Your task to perform on an android device: Do I have any events today? Image 0: 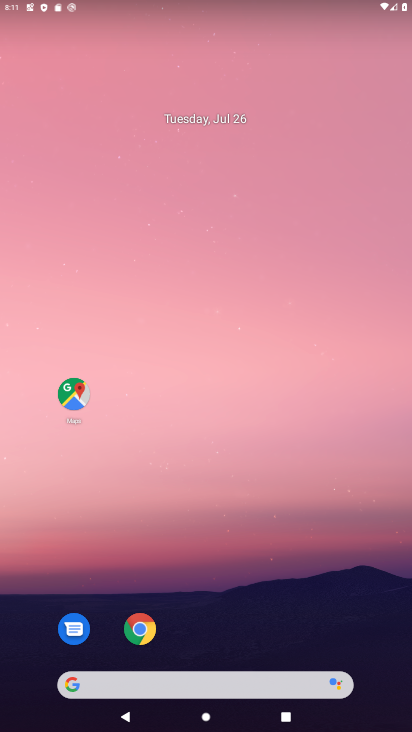
Step 0: press home button
Your task to perform on an android device: Do I have any events today? Image 1: 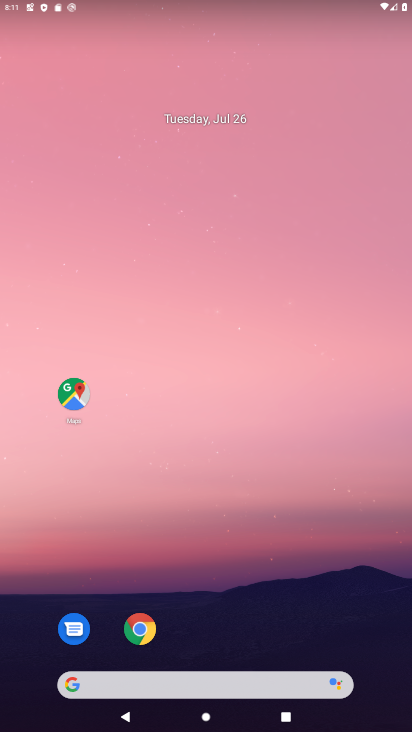
Step 1: drag from (216, 646) to (253, 32)
Your task to perform on an android device: Do I have any events today? Image 2: 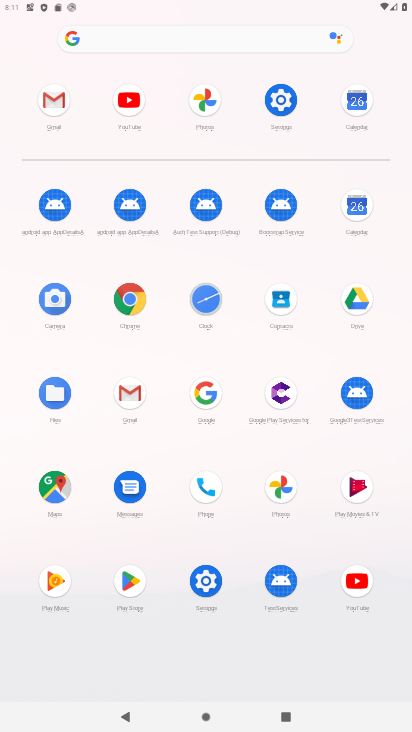
Step 2: click (353, 209)
Your task to perform on an android device: Do I have any events today? Image 3: 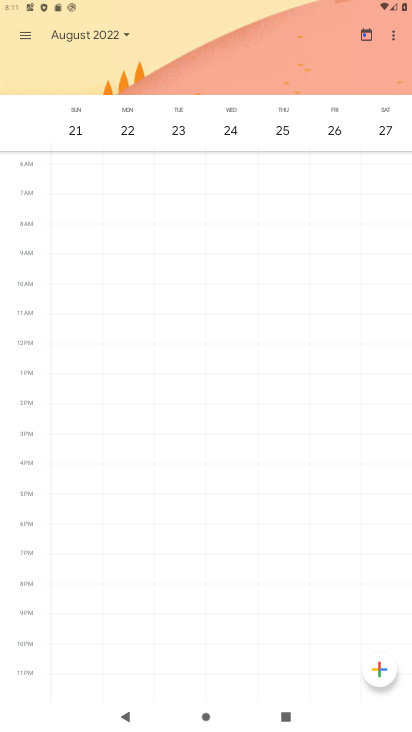
Step 3: click (23, 34)
Your task to perform on an android device: Do I have any events today? Image 4: 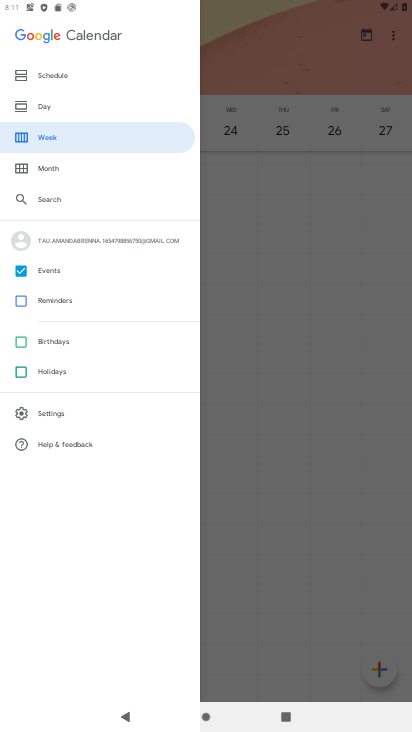
Step 4: click (47, 102)
Your task to perform on an android device: Do I have any events today? Image 5: 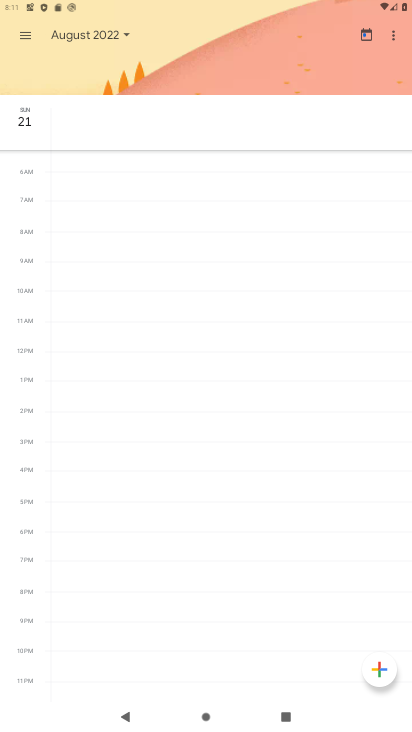
Step 5: click (125, 35)
Your task to perform on an android device: Do I have any events today? Image 6: 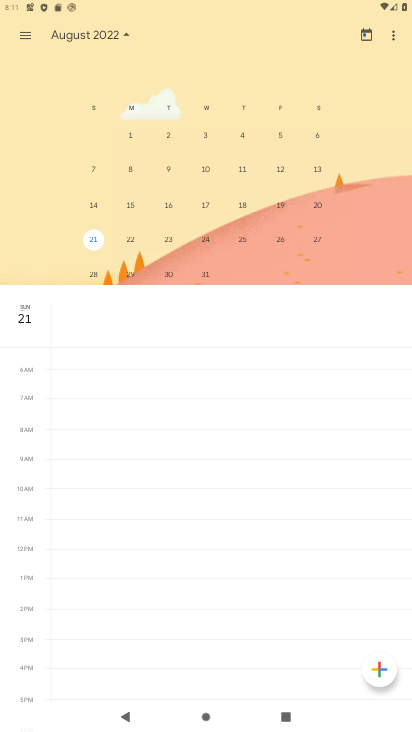
Step 6: drag from (107, 150) to (411, 137)
Your task to perform on an android device: Do I have any events today? Image 7: 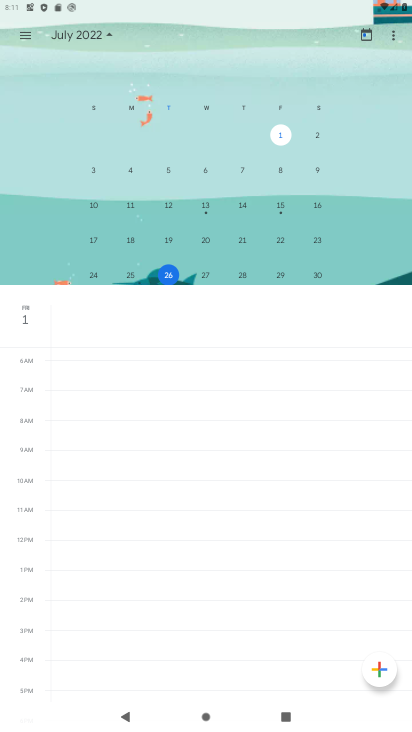
Step 7: click (170, 270)
Your task to perform on an android device: Do I have any events today? Image 8: 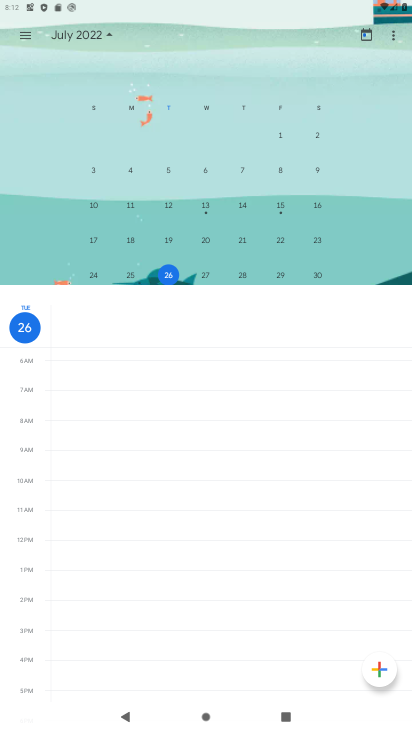
Step 8: click (106, 29)
Your task to perform on an android device: Do I have any events today? Image 9: 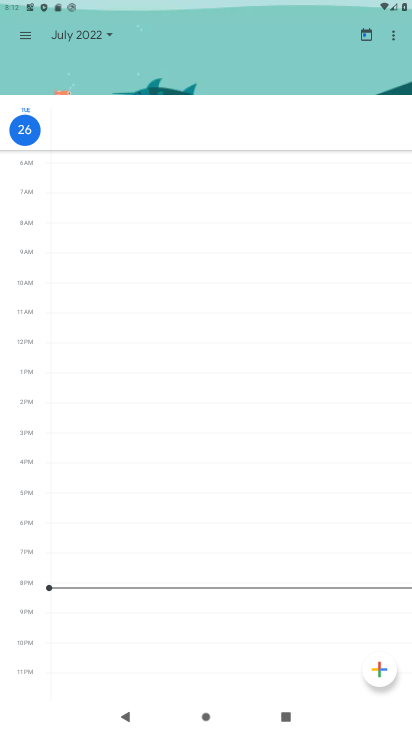
Step 9: task complete